Your task to perform on an android device: Open Google Chrome and click the shortcut for Amazon.com Image 0: 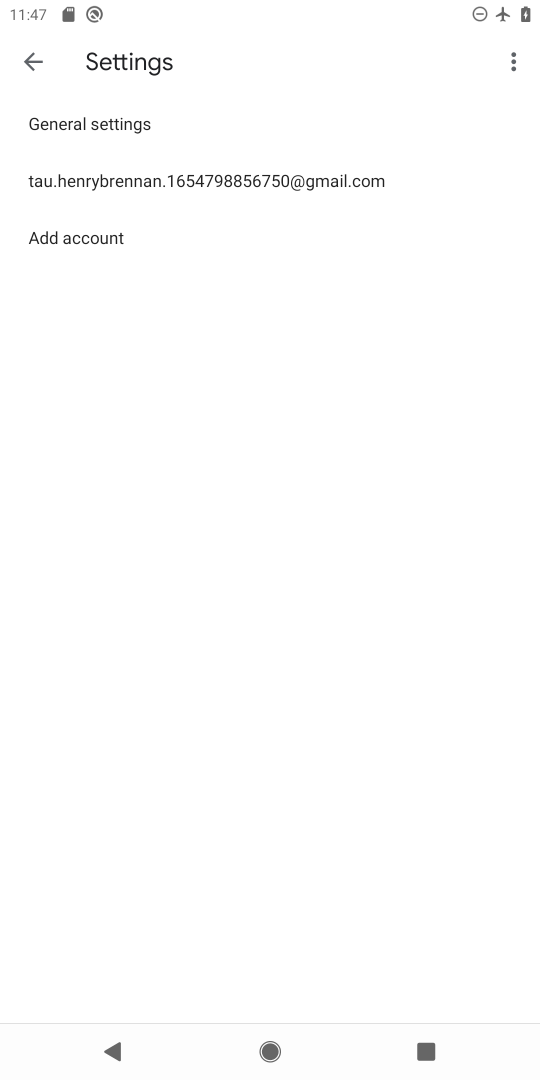
Step 0: press home button
Your task to perform on an android device: Open Google Chrome and click the shortcut for Amazon.com Image 1: 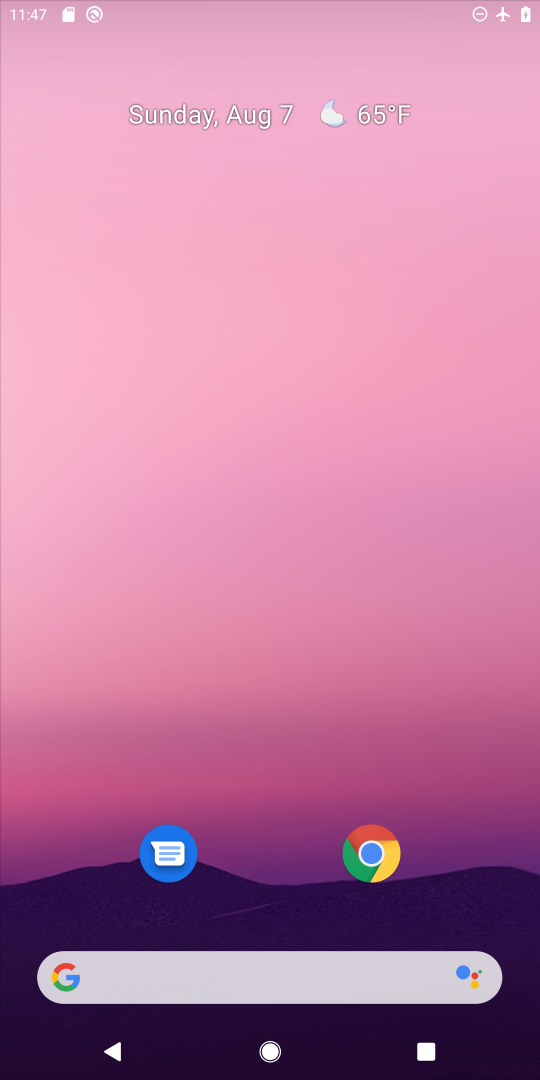
Step 1: drag from (246, 921) to (256, 260)
Your task to perform on an android device: Open Google Chrome and click the shortcut for Amazon.com Image 2: 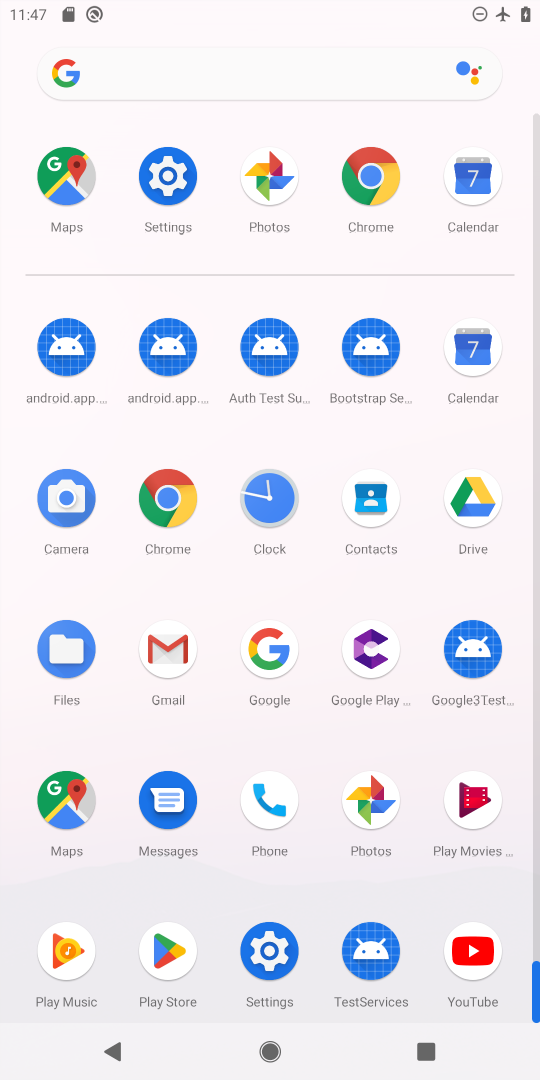
Step 2: click (158, 507)
Your task to perform on an android device: Open Google Chrome and click the shortcut for Amazon.com Image 3: 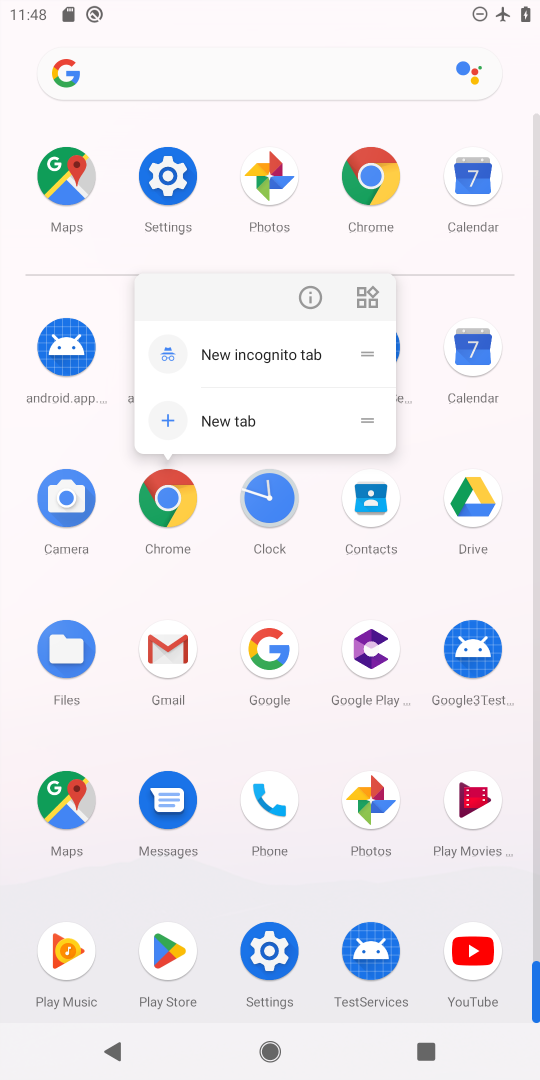
Step 3: click (160, 510)
Your task to perform on an android device: Open Google Chrome and click the shortcut for Amazon.com Image 4: 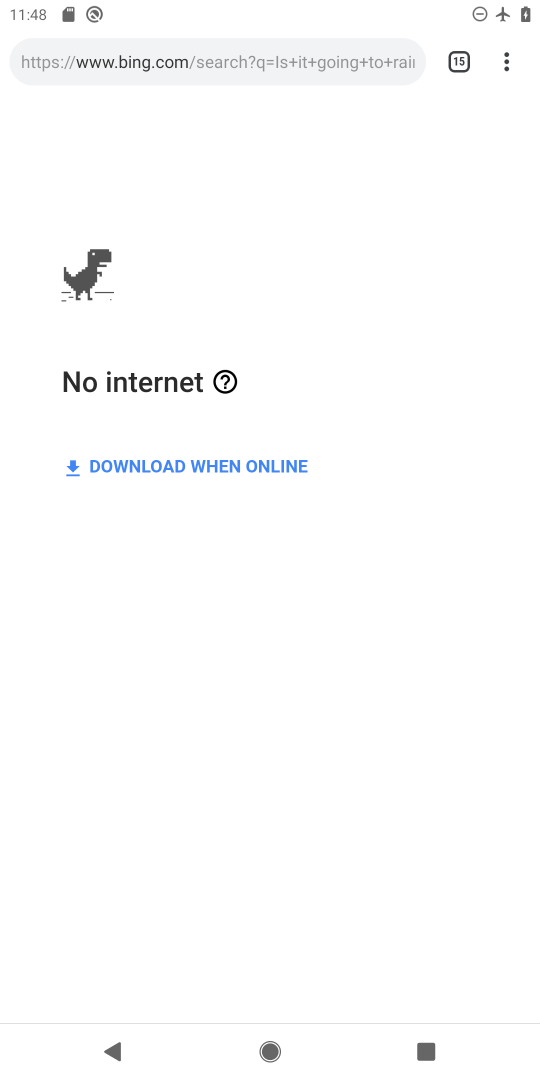
Step 4: click (515, 67)
Your task to perform on an android device: Open Google Chrome and click the shortcut for Amazon.com Image 5: 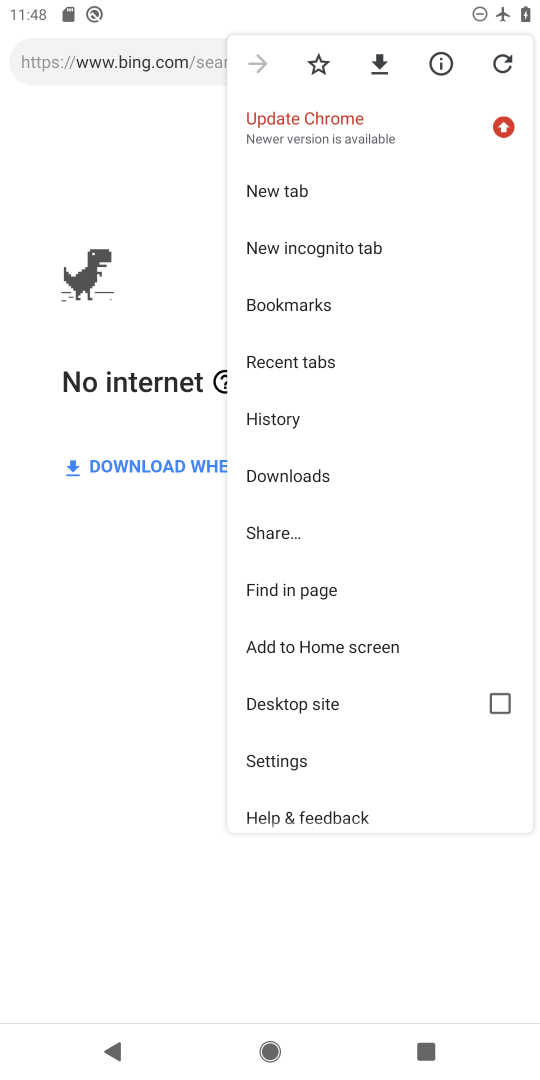
Step 5: click (314, 192)
Your task to perform on an android device: Open Google Chrome and click the shortcut for Amazon.com Image 6: 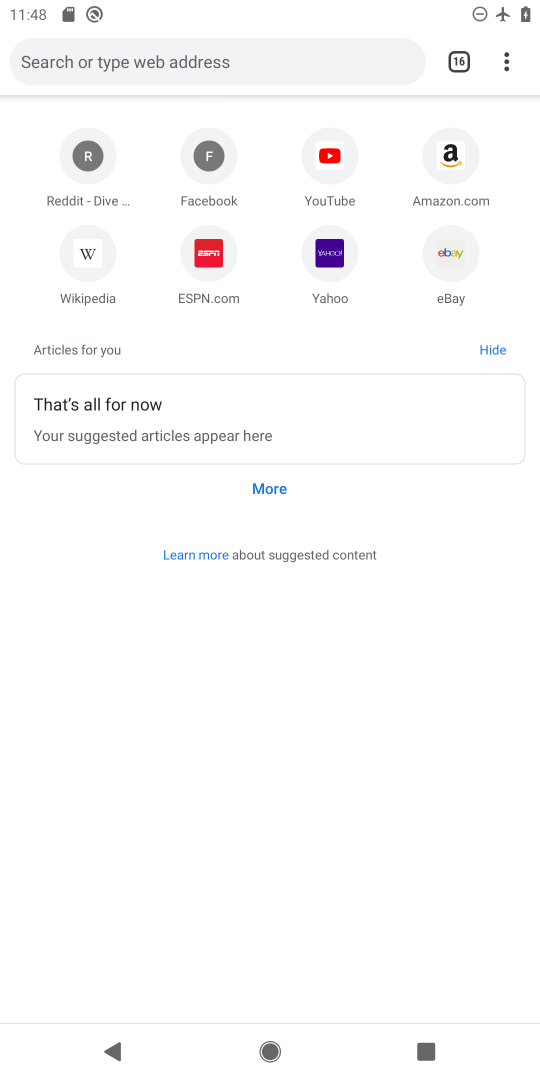
Step 6: click (466, 151)
Your task to perform on an android device: Open Google Chrome and click the shortcut for Amazon.com Image 7: 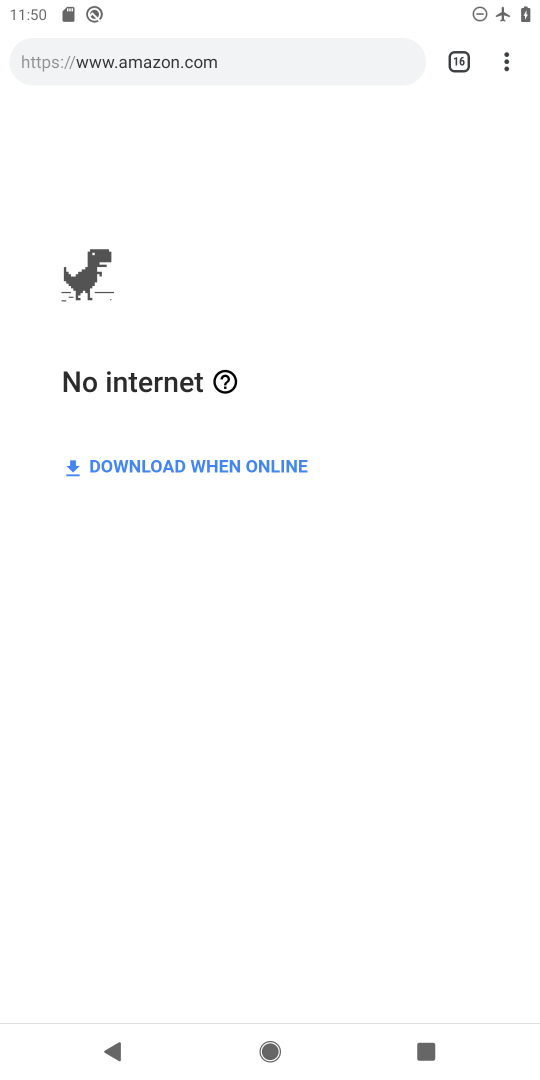
Step 7: task complete